Your task to perform on an android device: turn off airplane mode Image 0: 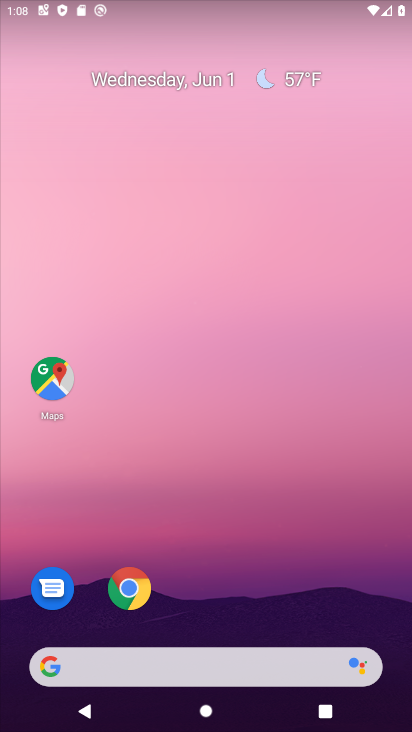
Step 0: click (61, 379)
Your task to perform on an android device: turn off airplane mode Image 1: 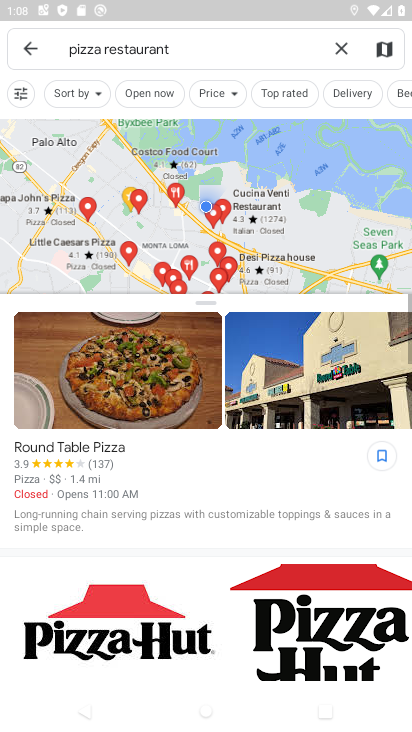
Step 1: press home button
Your task to perform on an android device: turn off airplane mode Image 2: 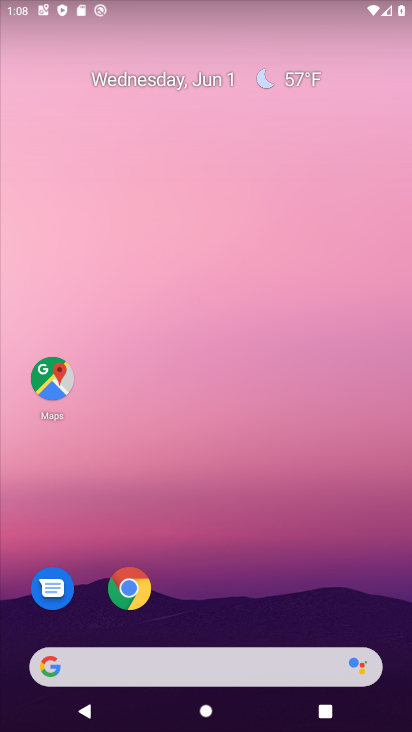
Step 2: drag from (299, 468) to (189, 1)
Your task to perform on an android device: turn off airplane mode Image 3: 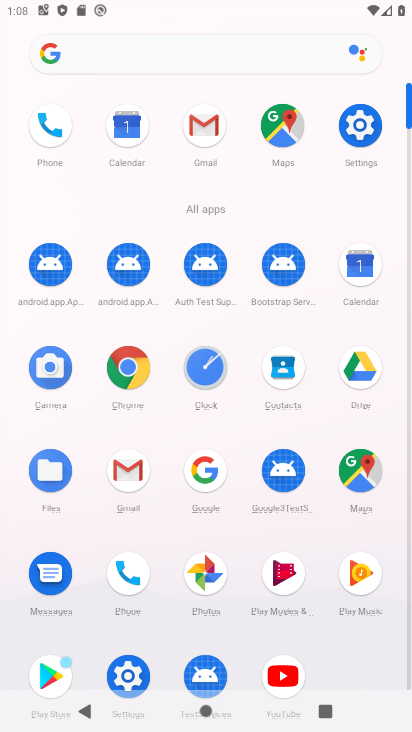
Step 3: click (357, 140)
Your task to perform on an android device: turn off airplane mode Image 4: 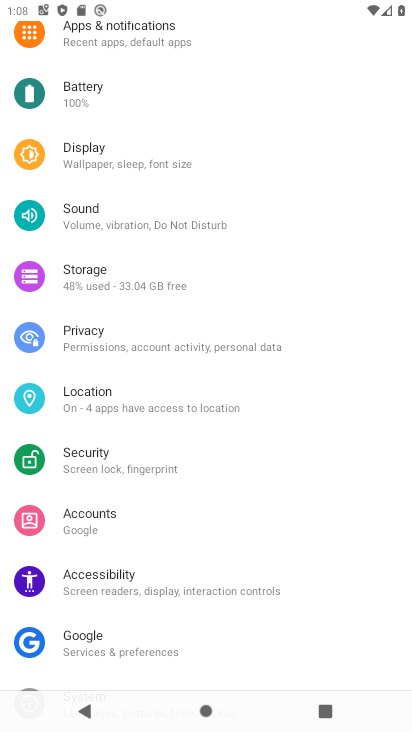
Step 4: drag from (161, 139) to (185, 574)
Your task to perform on an android device: turn off airplane mode Image 5: 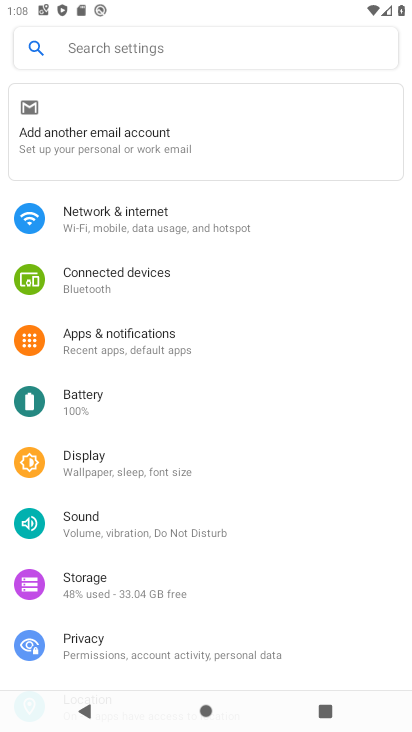
Step 5: drag from (218, 170) to (224, 486)
Your task to perform on an android device: turn off airplane mode Image 6: 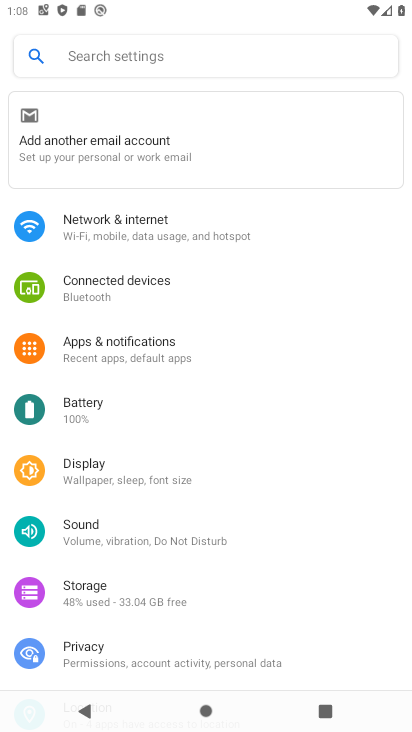
Step 6: click (170, 222)
Your task to perform on an android device: turn off airplane mode Image 7: 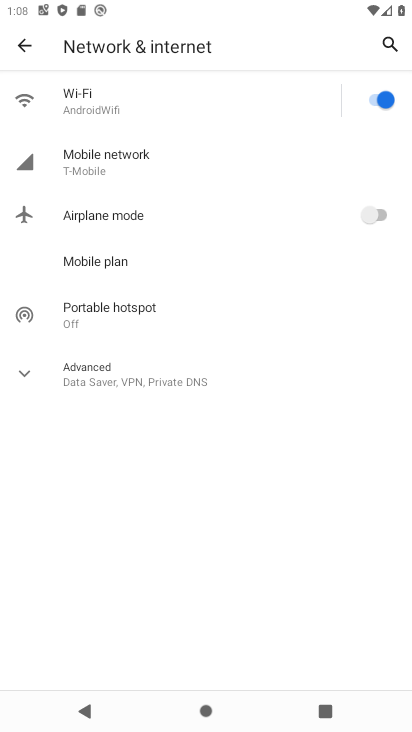
Step 7: task complete